Your task to perform on an android device: turn vacation reply on in the gmail app Image 0: 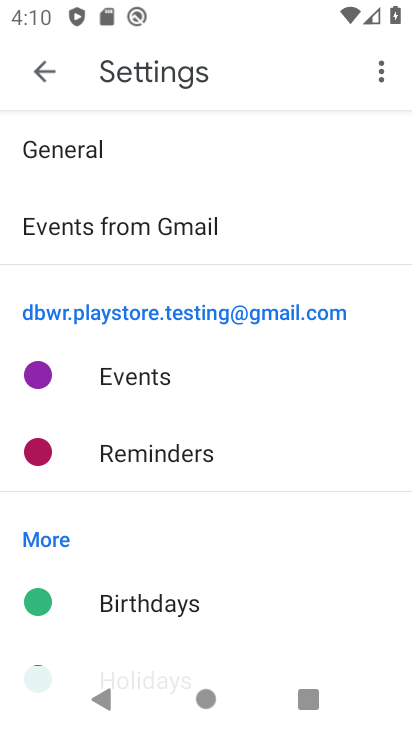
Step 0: click (36, 81)
Your task to perform on an android device: turn vacation reply on in the gmail app Image 1: 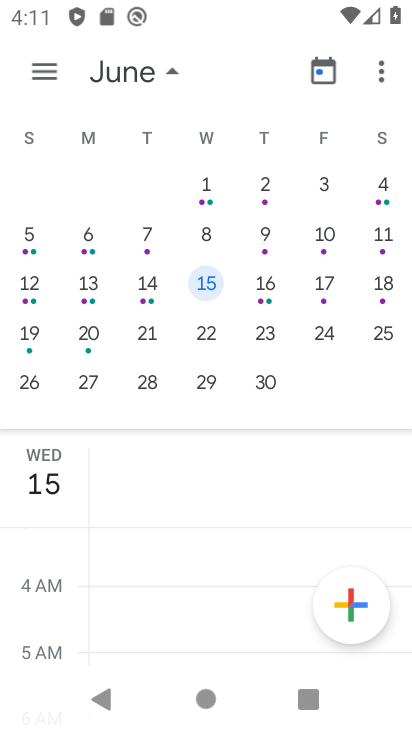
Step 1: drag from (248, 531) to (148, 195)
Your task to perform on an android device: turn vacation reply on in the gmail app Image 2: 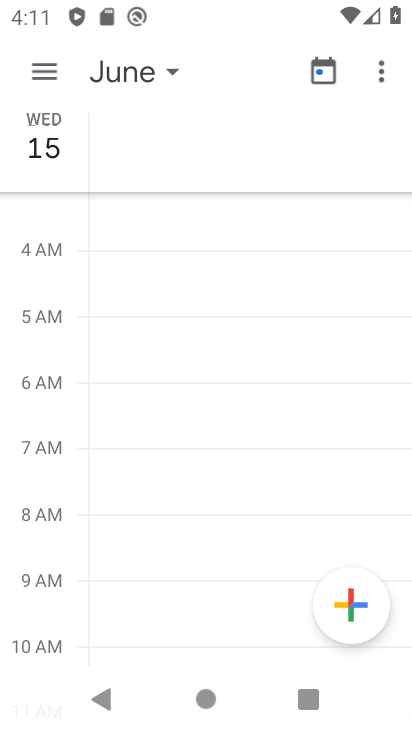
Step 2: drag from (286, 585) to (195, 108)
Your task to perform on an android device: turn vacation reply on in the gmail app Image 3: 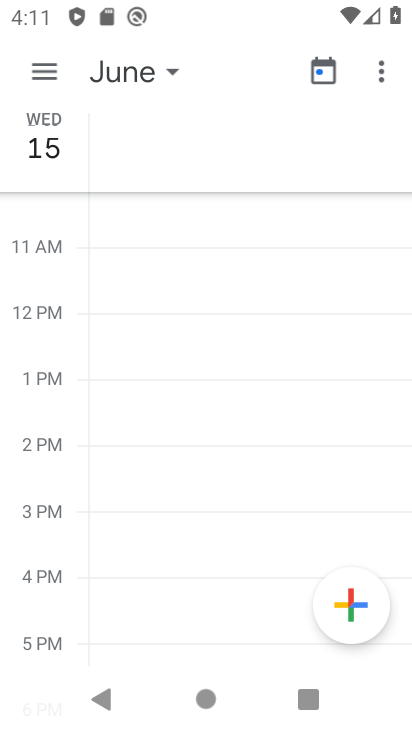
Step 3: drag from (249, 579) to (170, 80)
Your task to perform on an android device: turn vacation reply on in the gmail app Image 4: 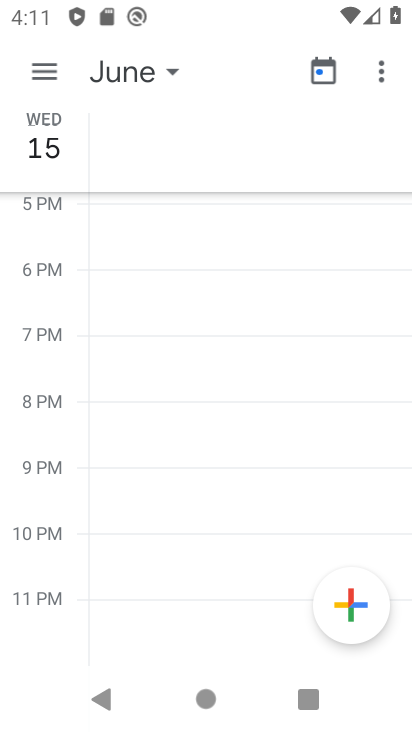
Step 4: drag from (207, 506) to (105, 47)
Your task to perform on an android device: turn vacation reply on in the gmail app Image 5: 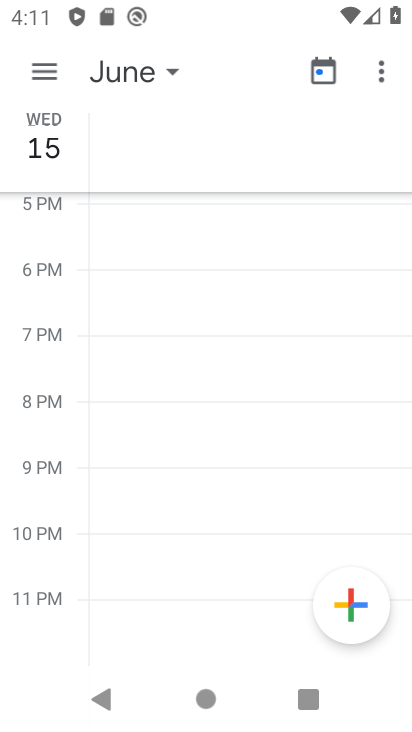
Step 5: drag from (218, 476) to (224, 124)
Your task to perform on an android device: turn vacation reply on in the gmail app Image 6: 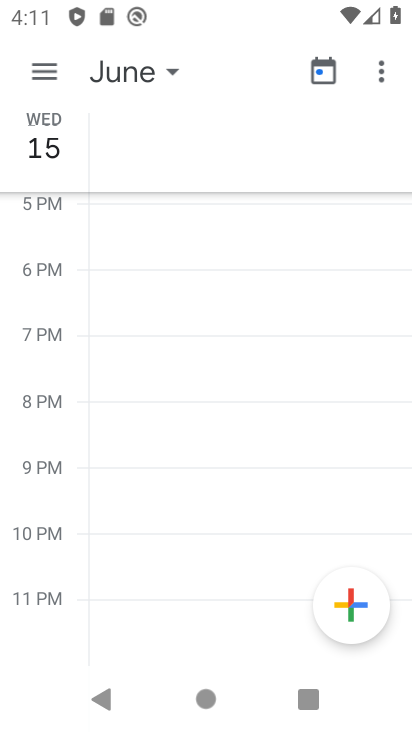
Step 6: click (109, 33)
Your task to perform on an android device: turn vacation reply on in the gmail app Image 7: 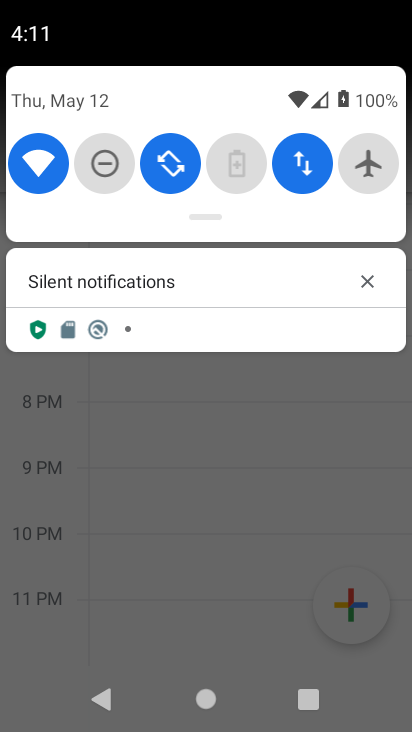
Step 7: drag from (209, 508) to (65, 74)
Your task to perform on an android device: turn vacation reply on in the gmail app Image 8: 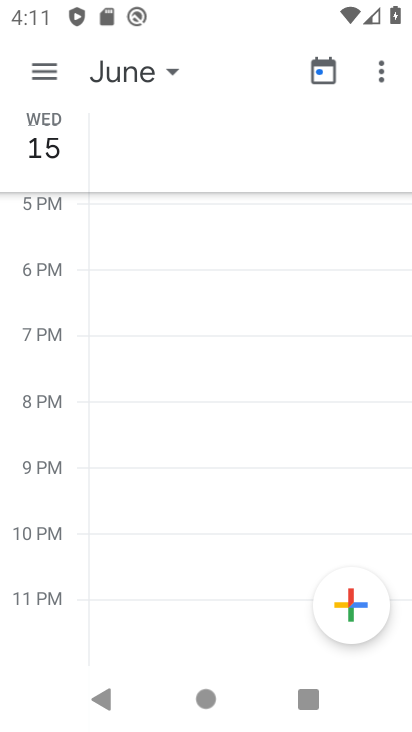
Step 8: drag from (232, 557) to (126, 122)
Your task to perform on an android device: turn vacation reply on in the gmail app Image 9: 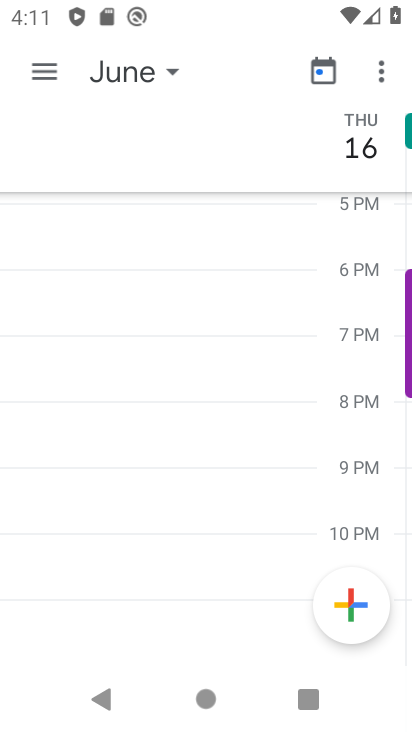
Step 9: drag from (251, 485) to (133, 127)
Your task to perform on an android device: turn vacation reply on in the gmail app Image 10: 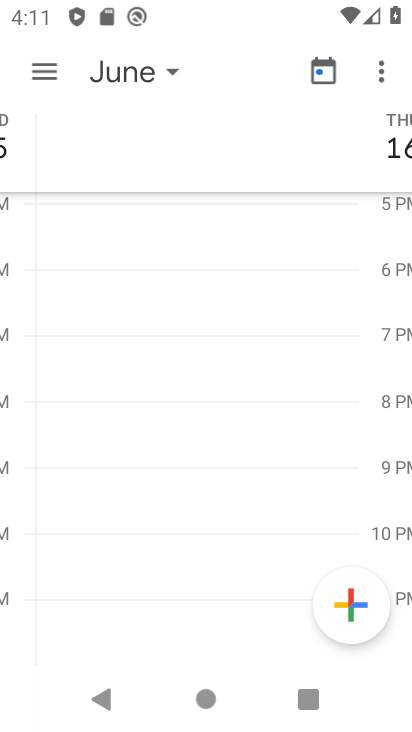
Step 10: drag from (228, 483) to (167, 88)
Your task to perform on an android device: turn vacation reply on in the gmail app Image 11: 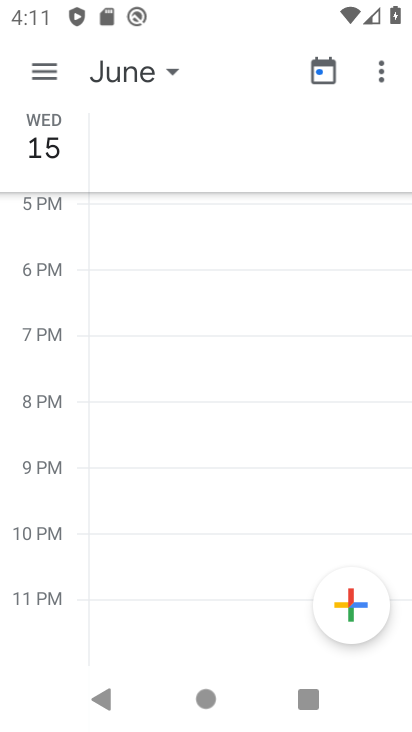
Step 11: drag from (190, 477) to (202, 16)
Your task to perform on an android device: turn vacation reply on in the gmail app Image 12: 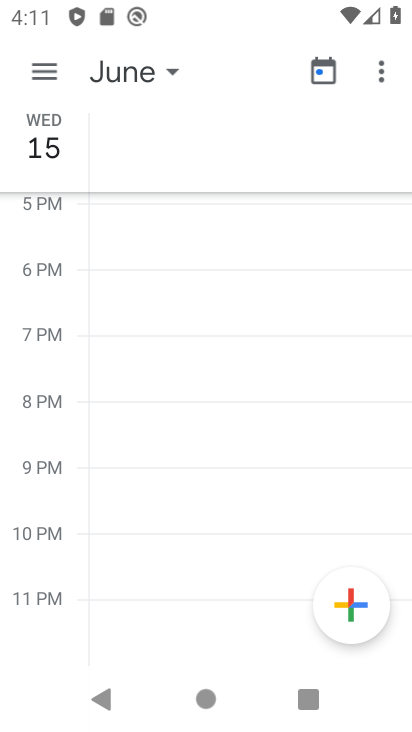
Step 12: drag from (211, 518) to (147, 25)
Your task to perform on an android device: turn vacation reply on in the gmail app Image 13: 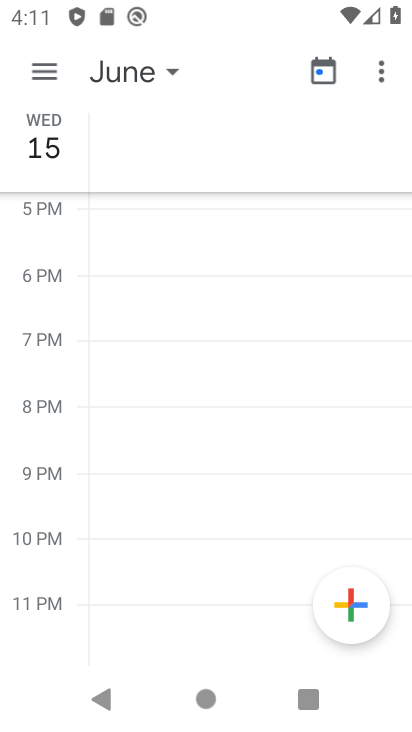
Step 13: drag from (166, 468) to (104, 15)
Your task to perform on an android device: turn vacation reply on in the gmail app Image 14: 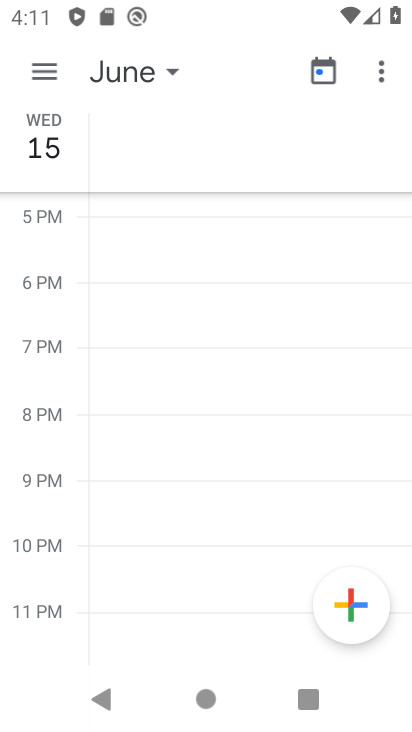
Step 14: drag from (227, 466) to (86, 36)
Your task to perform on an android device: turn vacation reply on in the gmail app Image 15: 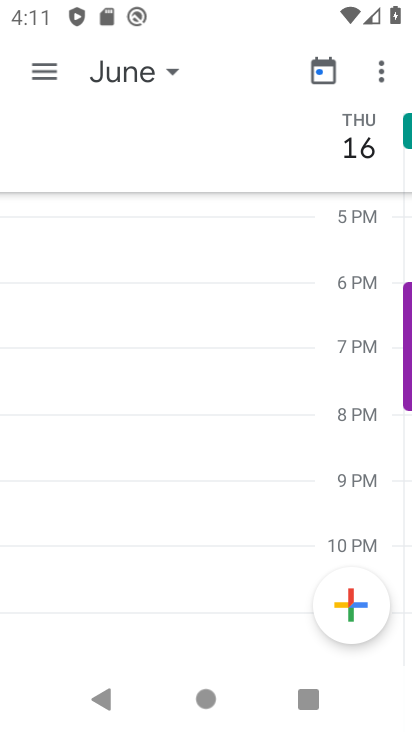
Step 15: drag from (172, 553) to (120, 74)
Your task to perform on an android device: turn vacation reply on in the gmail app Image 16: 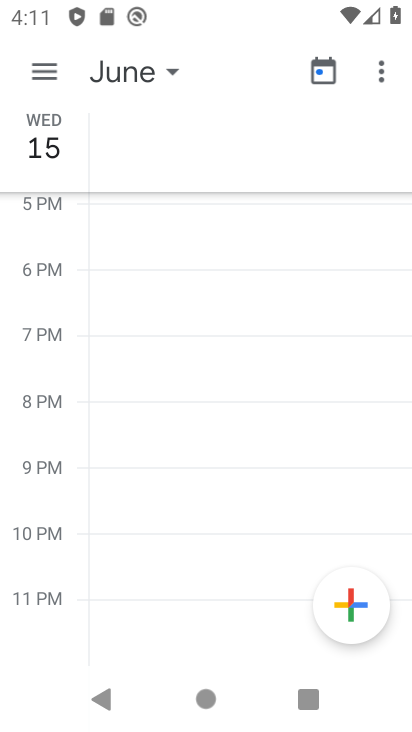
Step 16: drag from (208, 523) to (191, 50)
Your task to perform on an android device: turn vacation reply on in the gmail app Image 17: 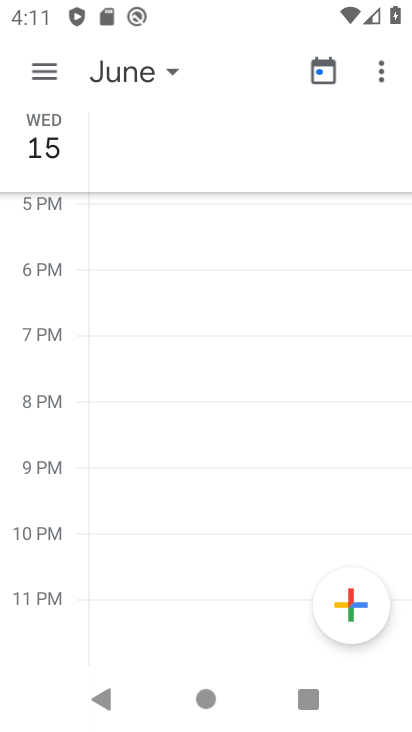
Step 17: drag from (223, 583) to (175, 52)
Your task to perform on an android device: turn vacation reply on in the gmail app Image 18: 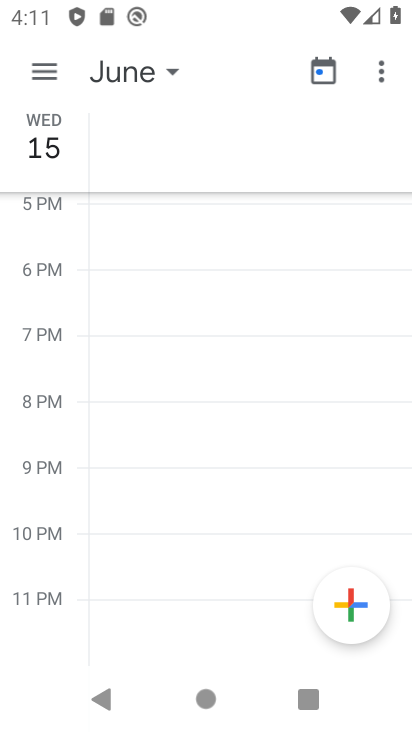
Step 18: drag from (270, 545) to (128, 132)
Your task to perform on an android device: turn vacation reply on in the gmail app Image 19: 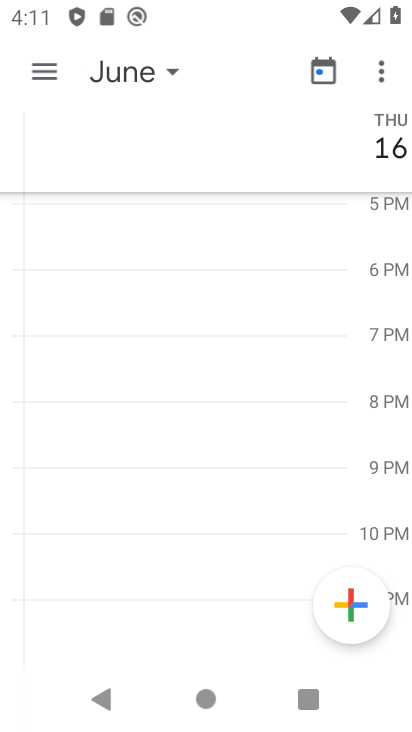
Step 19: drag from (212, 457) to (156, 23)
Your task to perform on an android device: turn vacation reply on in the gmail app Image 20: 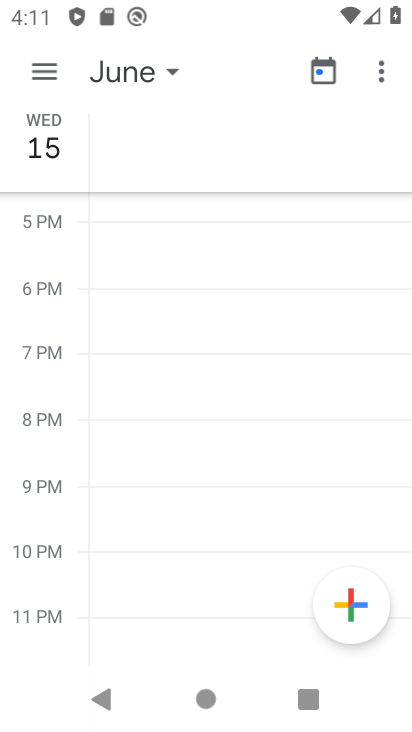
Step 20: drag from (191, 417) to (210, 43)
Your task to perform on an android device: turn vacation reply on in the gmail app Image 21: 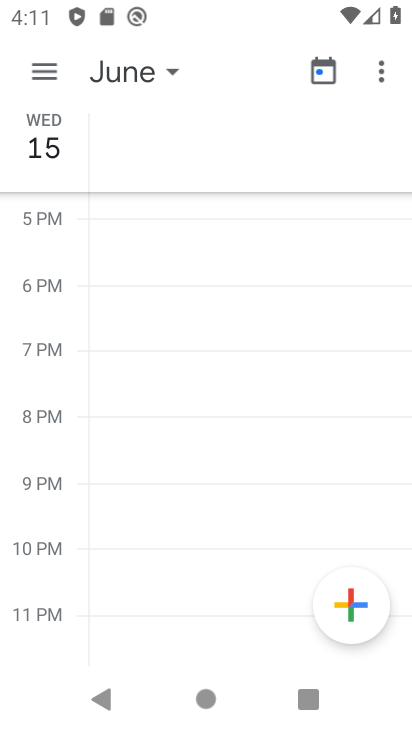
Step 21: drag from (232, 496) to (146, 7)
Your task to perform on an android device: turn vacation reply on in the gmail app Image 22: 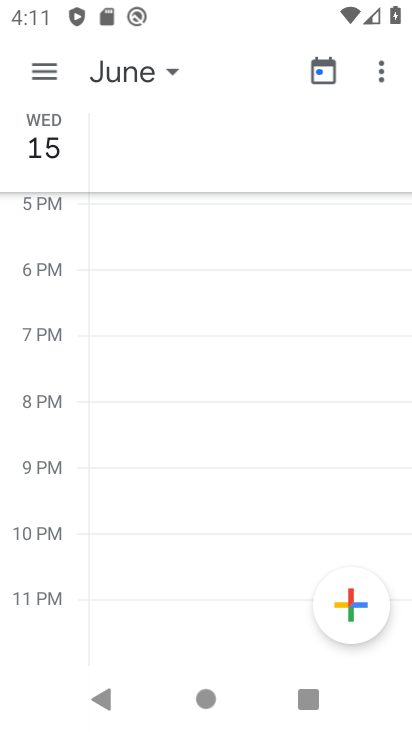
Step 22: drag from (189, 443) to (164, 27)
Your task to perform on an android device: turn vacation reply on in the gmail app Image 23: 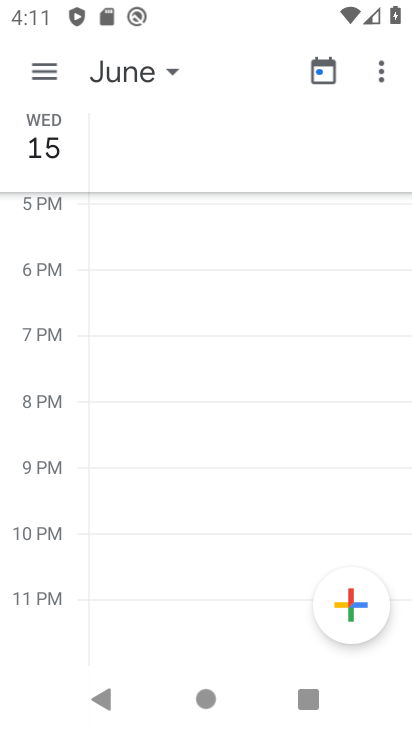
Step 23: drag from (235, 492) to (194, 45)
Your task to perform on an android device: turn vacation reply on in the gmail app Image 24: 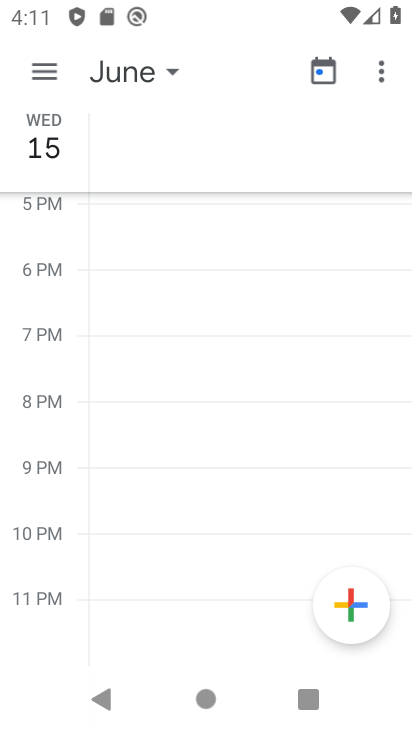
Step 24: click (38, 90)
Your task to perform on an android device: turn vacation reply on in the gmail app Image 25: 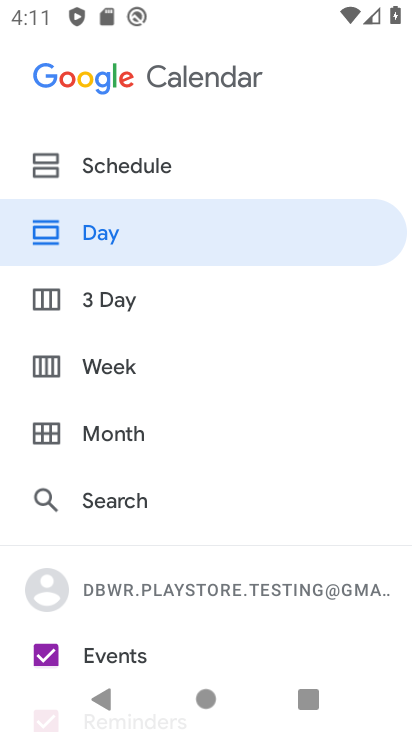
Step 25: drag from (199, 210) to (190, 471)
Your task to perform on an android device: turn vacation reply on in the gmail app Image 26: 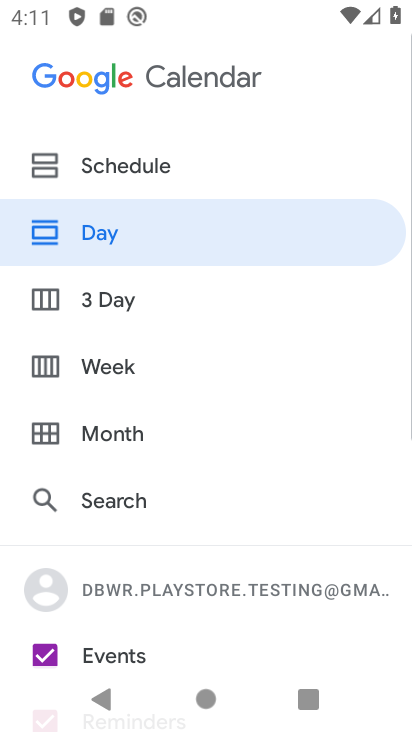
Step 26: drag from (136, 285) to (129, 232)
Your task to perform on an android device: turn vacation reply on in the gmail app Image 27: 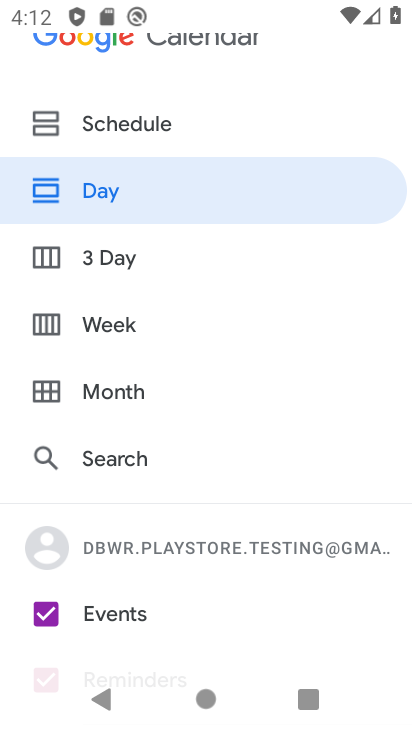
Step 27: press home button
Your task to perform on an android device: turn vacation reply on in the gmail app Image 28: 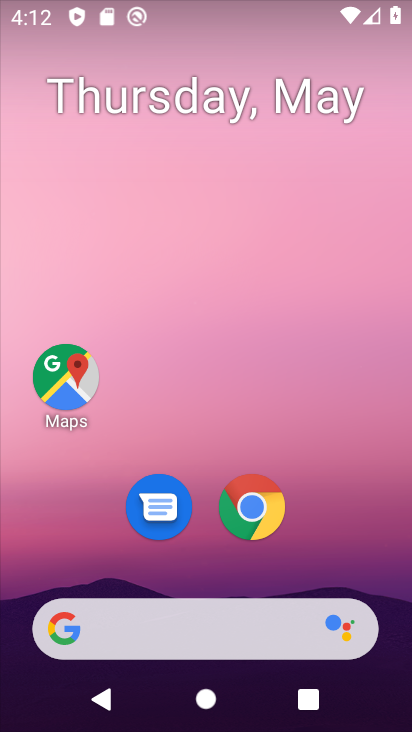
Step 28: drag from (354, 597) to (1, 62)
Your task to perform on an android device: turn vacation reply on in the gmail app Image 29: 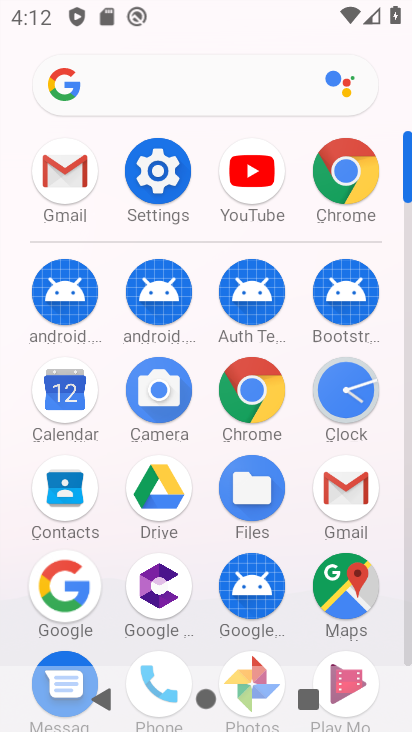
Step 29: drag from (236, 520) to (100, 55)
Your task to perform on an android device: turn vacation reply on in the gmail app Image 30: 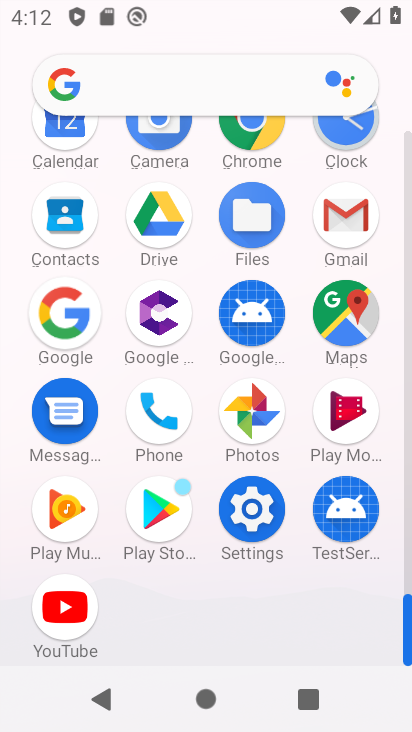
Step 30: drag from (238, 464) to (198, 145)
Your task to perform on an android device: turn vacation reply on in the gmail app Image 31: 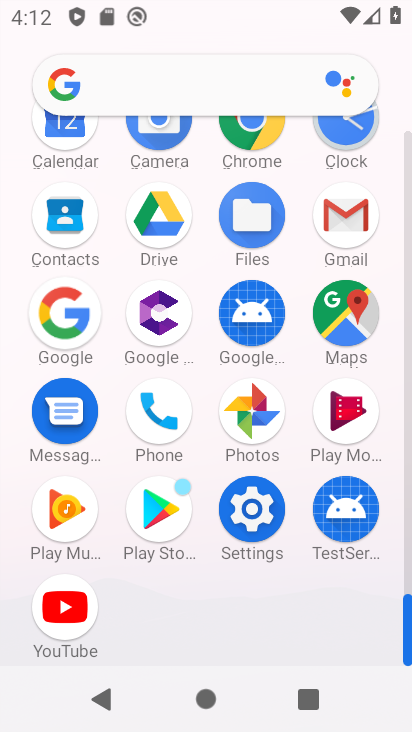
Step 31: click (342, 221)
Your task to perform on an android device: turn vacation reply on in the gmail app Image 32: 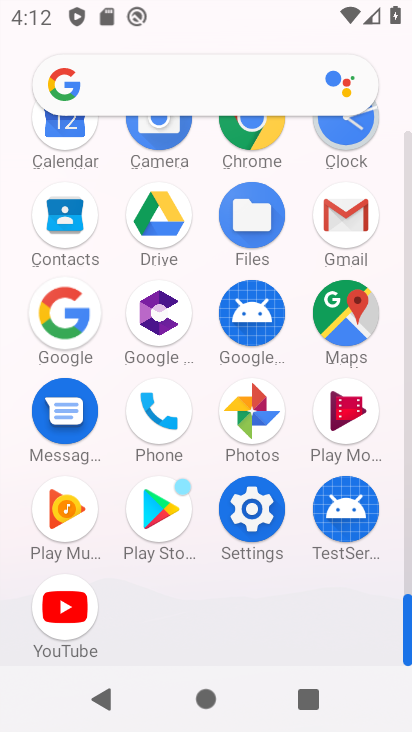
Step 32: click (343, 220)
Your task to perform on an android device: turn vacation reply on in the gmail app Image 33: 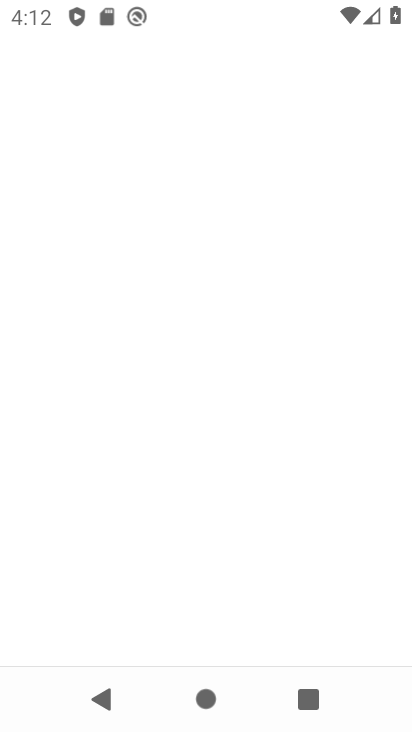
Step 33: click (348, 222)
Your task to perform on an android device: turn vacation reply on in the gmail app Image 34: 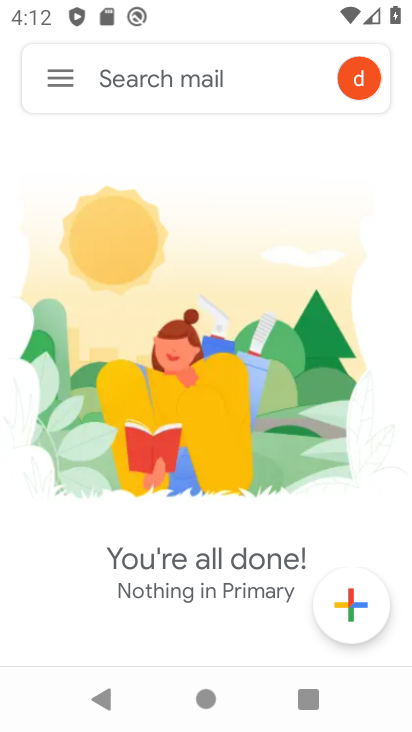
Step 34: click (55, 84)
Your task to perform on an android device: turn vacation reply on in the gmail app Image 35: 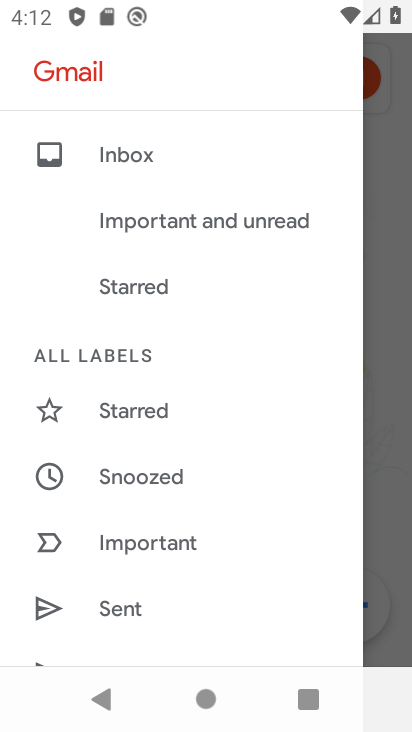
Step 35: drag from (234, 560) to (168, 219)
Your task to perform on an android device: turn vacation reply on in the gmail app Image 36: 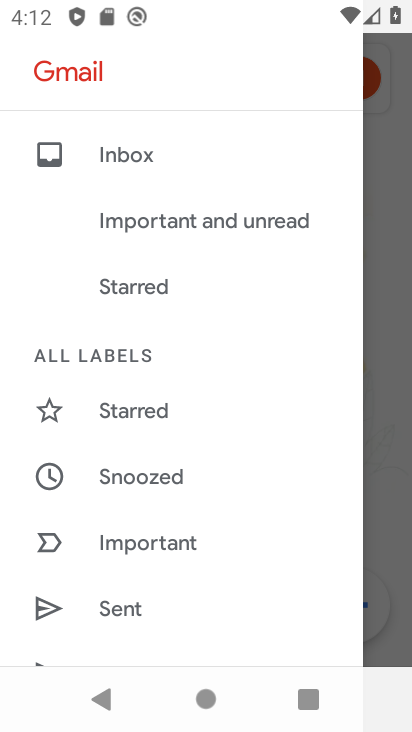
Step 36: drag from (200, 560) to (94, 160)
Your task to perform on an android device: turn vacation reply on in the gmail app Image 37: 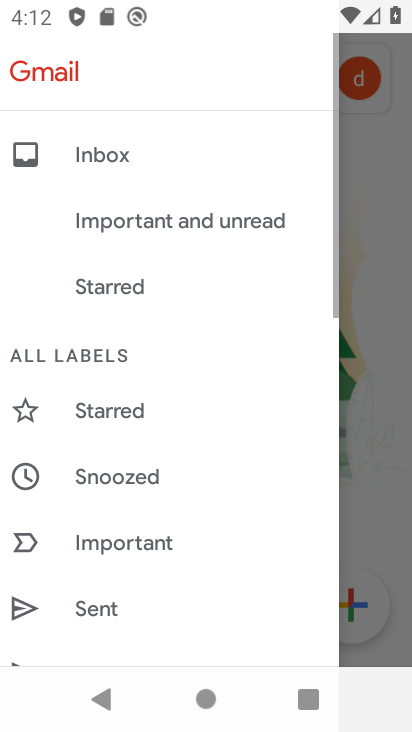
Step 37: drag from (233, 536) to (159, 186)
Your task to perform on an android device: turn vacation reply on in the gmail app Image 38: 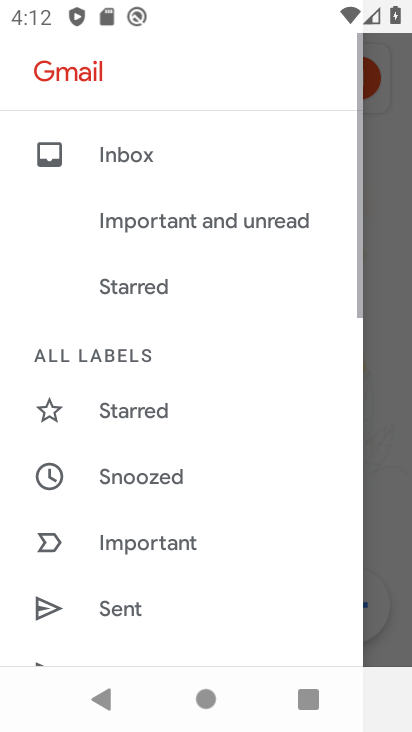
Step 38: drag from (190, 529) to (205, 194)
Your task to perform on an android device: turn vacation reply on in the gmail app Image 39: 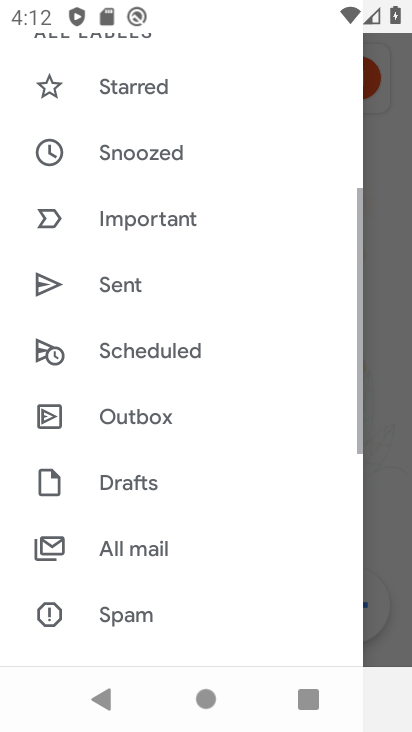
Step 39: drag from (207, 458) to (201, 103)
Your task to perform on an android device: turn vacation reply on in the gmail app Image 40: 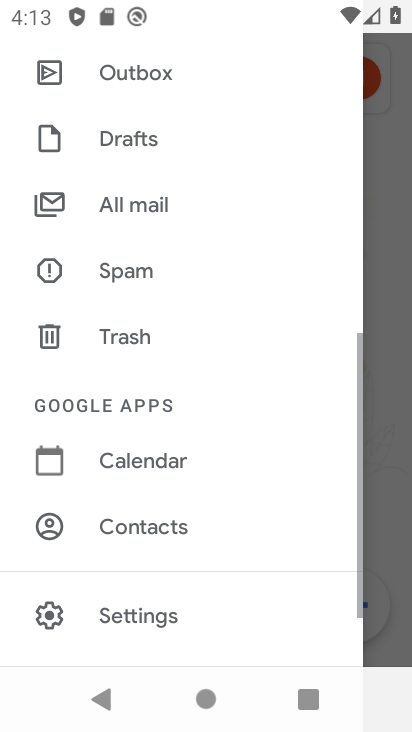
Step 40: drag from (190, 466) to (157, 99)
Your task to perform on an android device: turn vacation reply on in the gmail app Image 41: 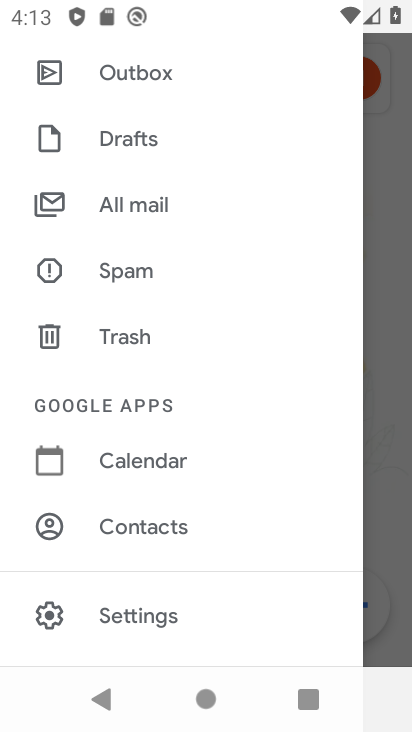
Step 41: click (141, 603)
Your task to perform on an android device: turn vacation reply on in the gmail app Image 42: 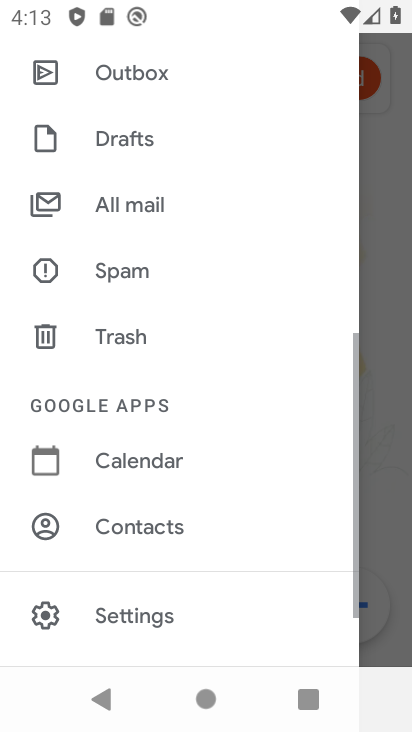
Step 42: click (139, 609)
Your task to perform on an android device: turn vacation reply on in the gmail app Image 43: 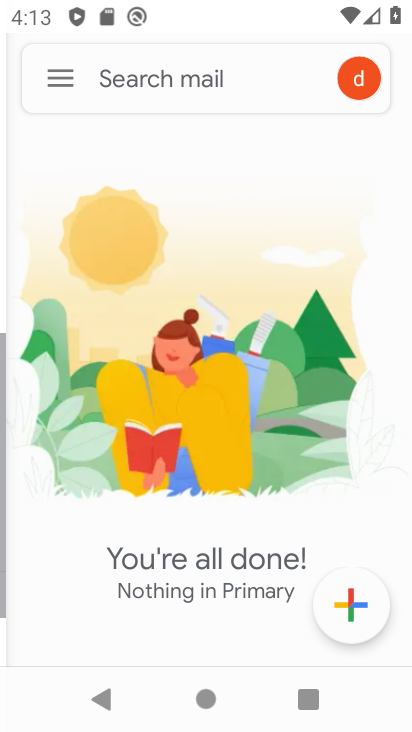
Step 43: click (139, 609)
Your task to perform on an android device: turn vacation reply on in the gmail app Image 44: 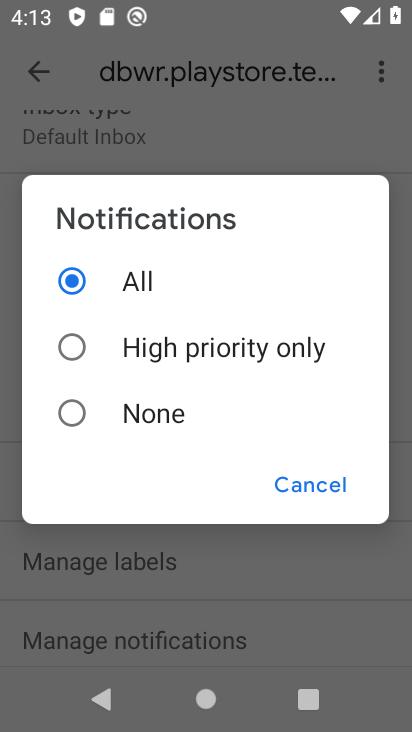
Step 44: click (295, 490)
Your task to perform on an android device: turn vacation reply on in the gmail app Image 45: 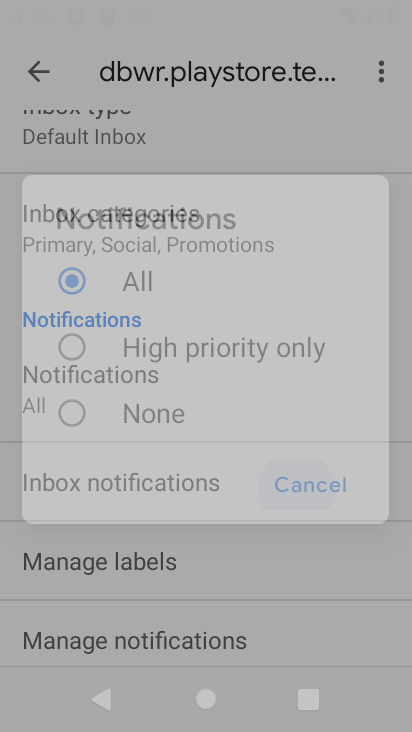
Step 45: click (301, 476)
Your task to perform on an android device: turn vacation reply on in the gmail app Image 46: 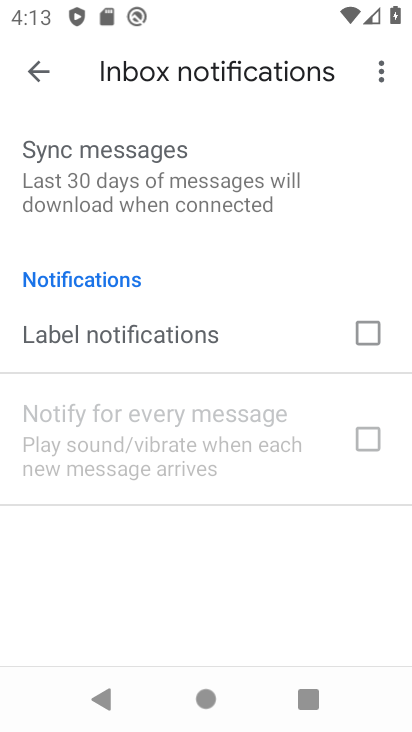
Step 46: click (33, 66)
Your task to perform on an android device: turn vacation reply on in the gmail app Image 47: 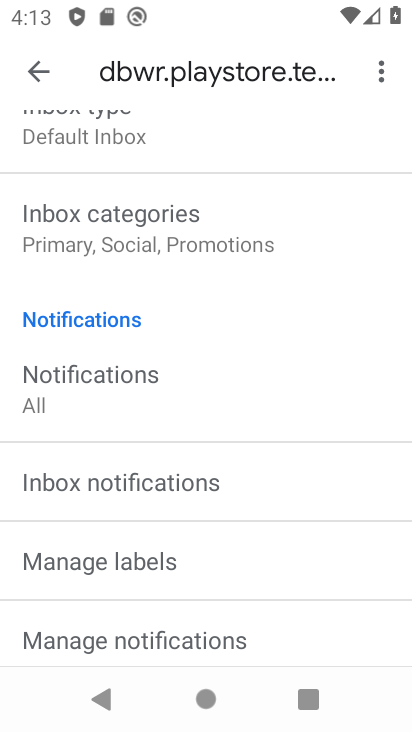
Step 47: drag from (131, 470) to (42, 99)
Your task to perform on an android device: turn vacation reply on in the gmail app Image 48: 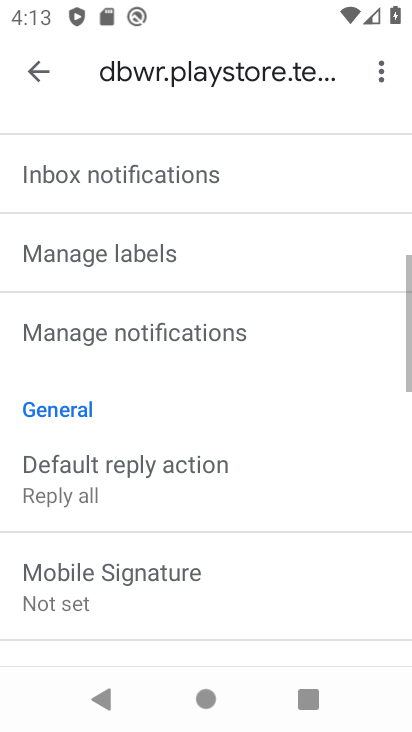
Step 48: drag from (174, 444) to (148, 63)
Your task to perform on an android device: turn vacation reply on in the gmail app Image 49: 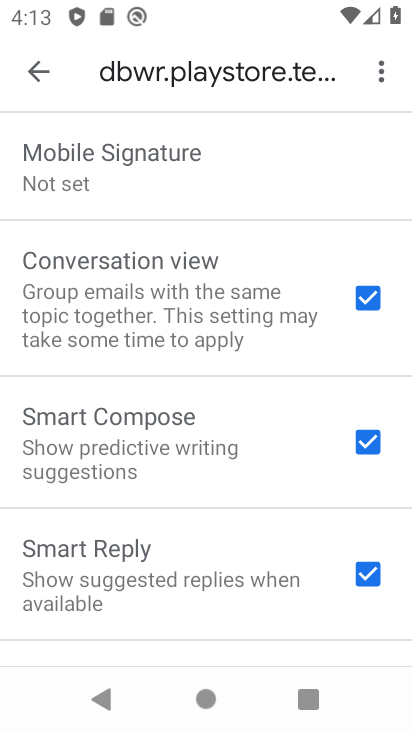
Step 49: drag from (158, 593) to (134, 131)
Your task to perform on an android device: turn vacation reply on in the gmail app Image 50: 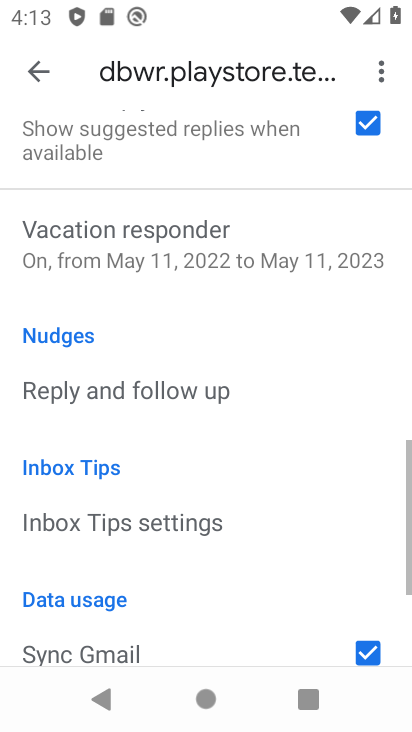
Step 50: drag from (191, 469) to (130, 134)
Your task to perform on an android device: turn vacation reply on in the gmail app Image 51: 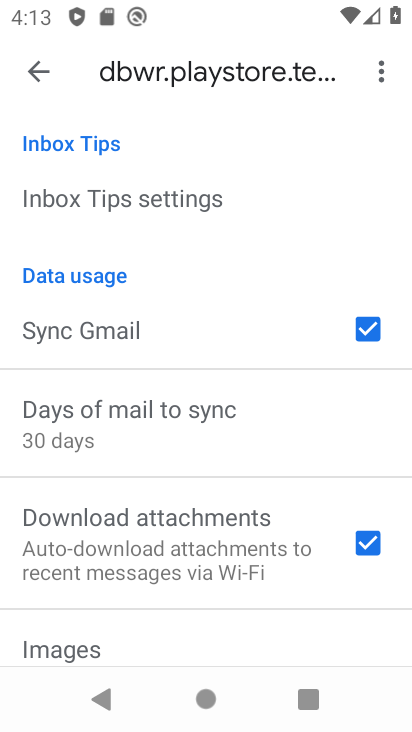
Step 51: drag from (175, 496) to (142, 182)
Your task to perform on an android device: turn vacation reply on in the gmail app Image 52: 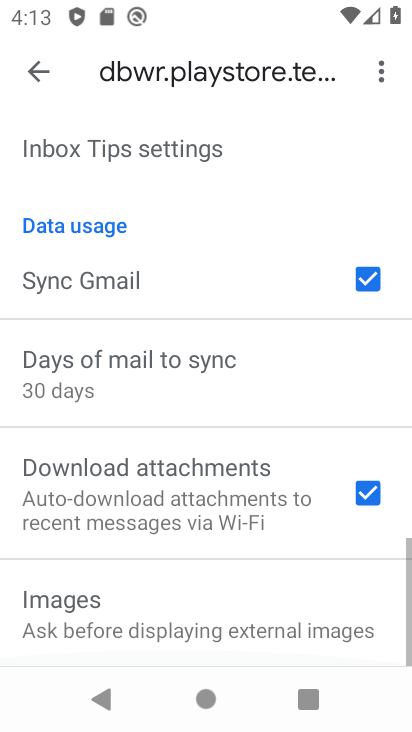
Step 52: drag from (162, 456) to (147, 175)
Your task to perform on an android device: turn vacation reply on in the gmail app Image 53: 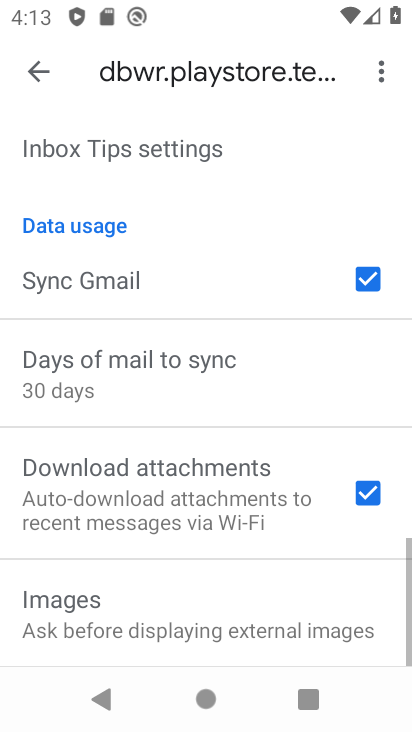
Step 53: drag from (163, 504) to (97, 35)
Your task to perform on an android device: turn vacation reply on in the gmail app Image 54: 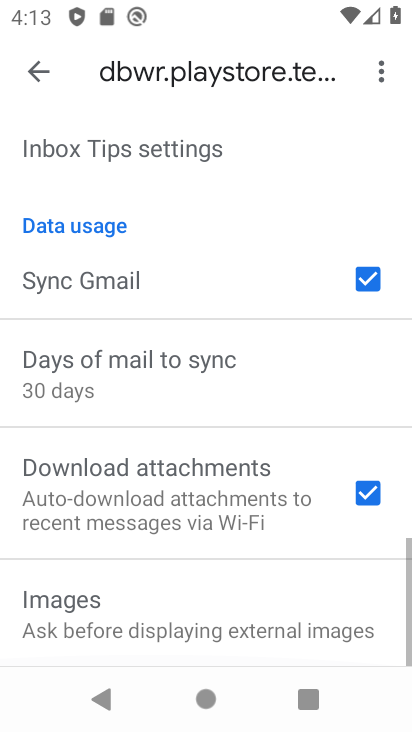
Step 54: drag from (156, 434) to (115, 161)
Your task to perform on an android device: turn vacation reply on in the gmail app Image 55: 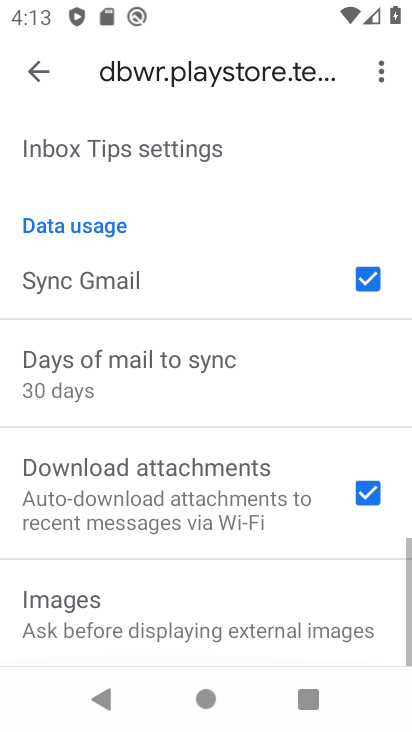
Step 55: drag from (189, 402) to (198, 110)
Your task to perform on an android device: turn vacation reply on in the gmail app Image 56: 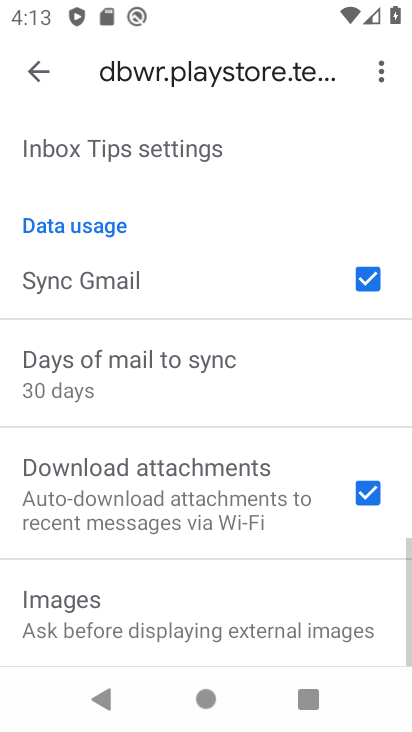
Step 56: drag from (221, 392) to (203, 39)
Your task to perform on an android device: turn vacation reply on in the gmail app Image 57: 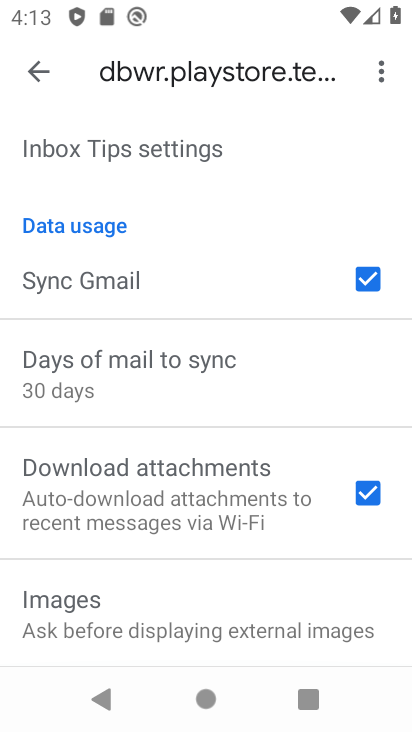
Step 57: drag from (196, 283) to (213, 2)
Your task to perform on an android device: turn vacation reply on in the gmail app Image 58: 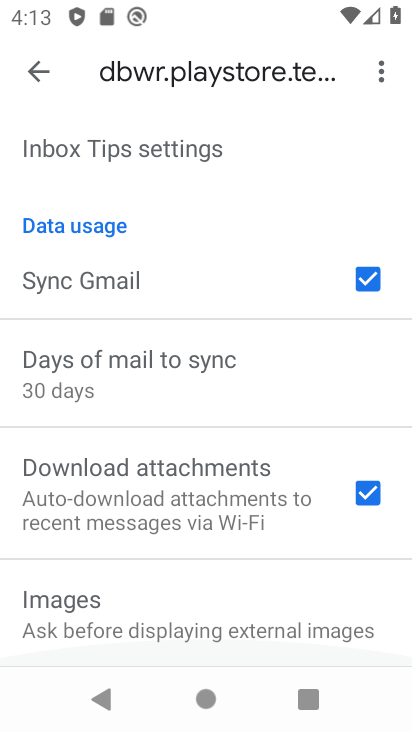
Step 58: drag from (248, 430) to (169, 10)
Your task to perform on an android device: turn vacation reply on in the gmail app Image 59: 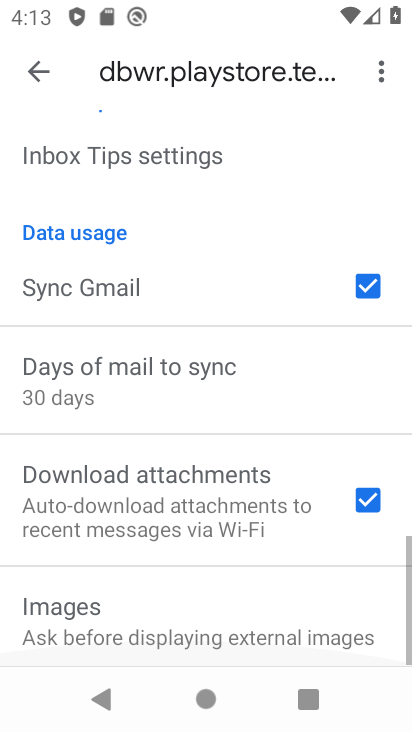
Step 59: drag from (257, 353) to (260, 12)
Your task to perform on an android device: turn vacation reply on in the gmail app Image 60: 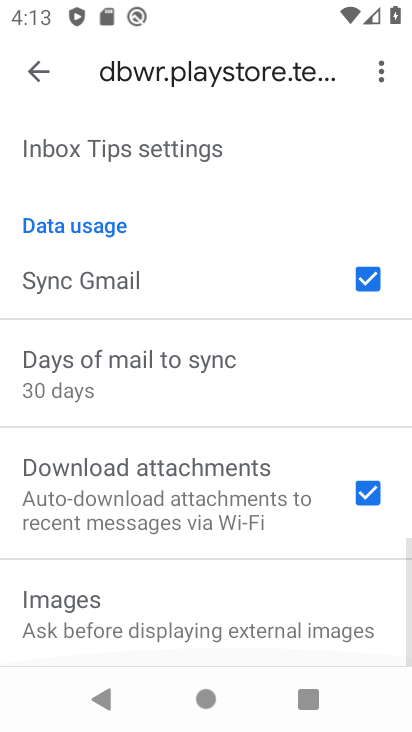
Step 60: drag from (195, 405) to (161, 133)
Your task to perform on an android device: turn vacation reply on in the gmail app Image 61: 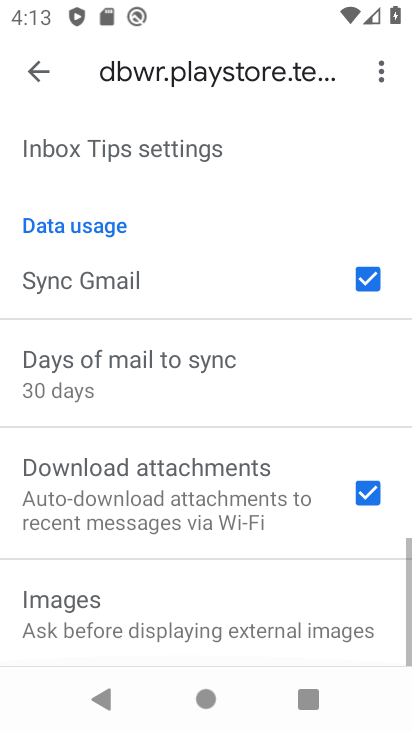
Step 61: drag from (152, 349) to (108, 16)
Your task to perform on an android device: turn vacation reply on in the gmail app Image 62: 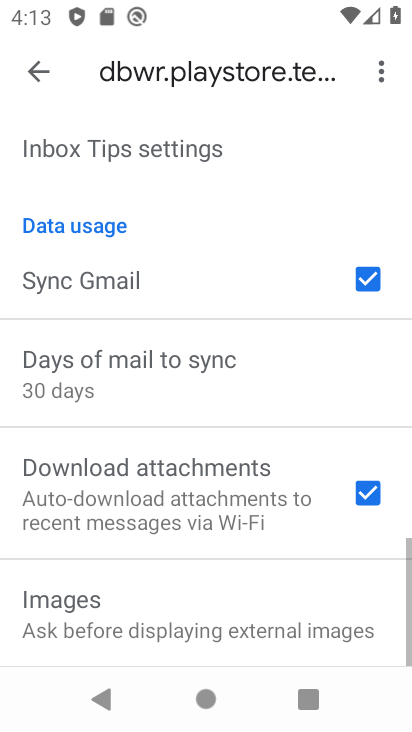
Step 62: drag from (172, 410) to (152, 20)
Your task to perform on an android device: turn vacation reply on in the gmail app Image 63: 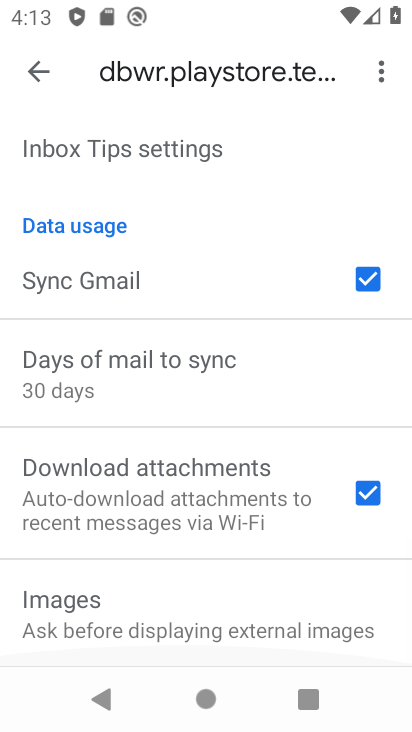
Step 63: drag from (176, 319) to (214, 72)
Your task to perform on an android device: turn vacation reply on in the gmail app Image 64: 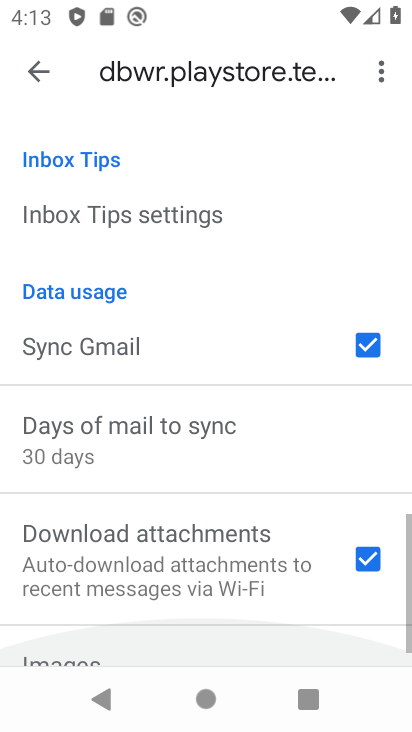
Step 64: drag from (185, 400) to (151, 248)
Your task to perform on an android device: turn vacation reply on in the gmail app Image 65: 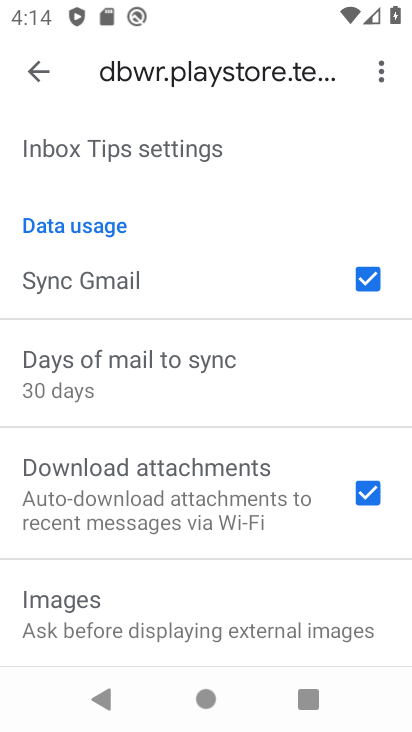
Step 65: drag from (202, 489) to (162, 3)
Your task to perform on an android device: turn vacation reply on in the gmail app Image 66: 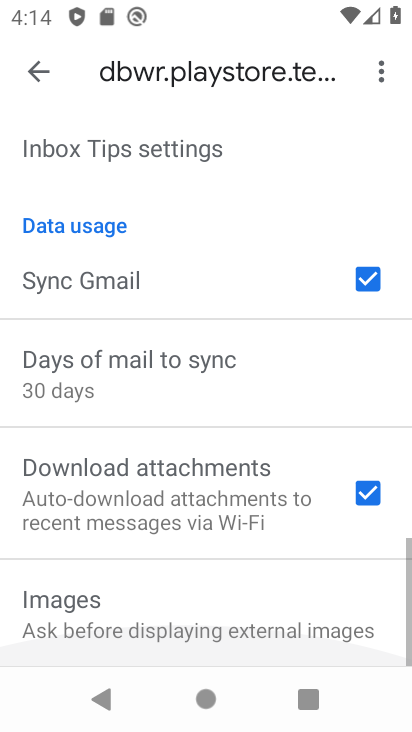
Step 66: drag from (234, 430) to (184, 109)
Your task to perform on an android device: turn vacation reply on in the gmail app Image 67: 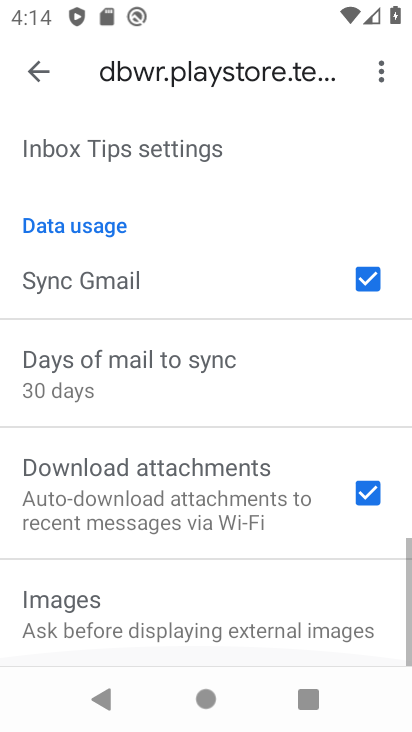
Step 67: drag from (236, 476) to (170, 11)
Your task to perform on an android device: turn vacation reply on in the gmail app Image 68: 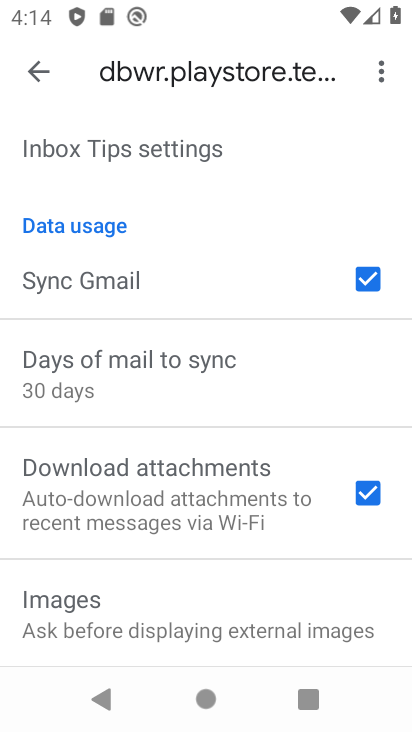
Step 68: drag from (239, 450) to (171, 7)
Your task to perform on an android device: turn vacation reply on in the gmail app Image 69: 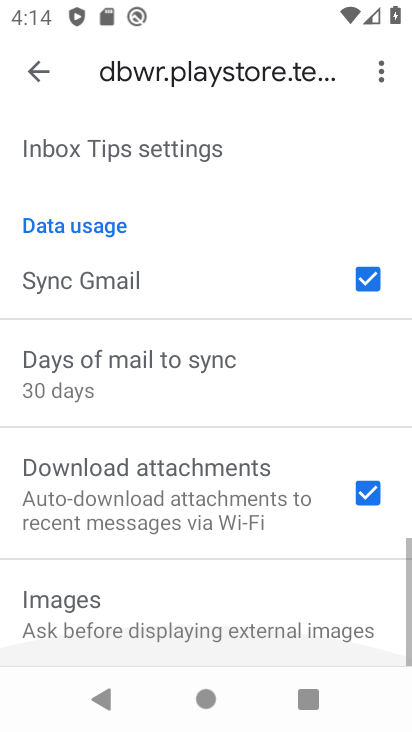
Step 69: drag from (261, 488) to (188, 141)
Your task to perform on an android device: turn vacation reply on in the gmail app Image 70: 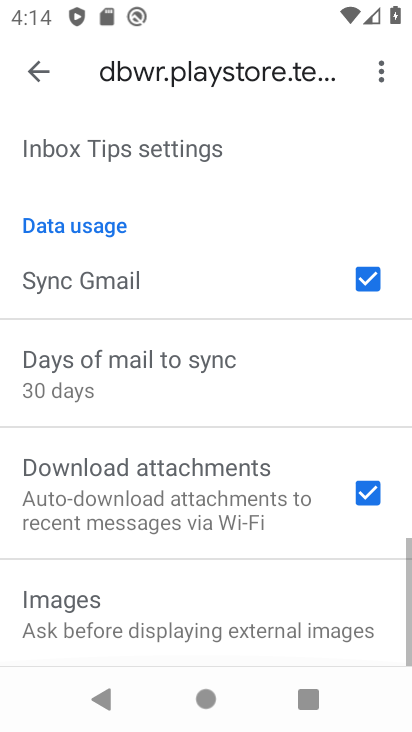
Step 70: drag from (258, 318) to (236, 52)
Your task to perform on an android device: turn vacation reply on in the gmail app Image 71: 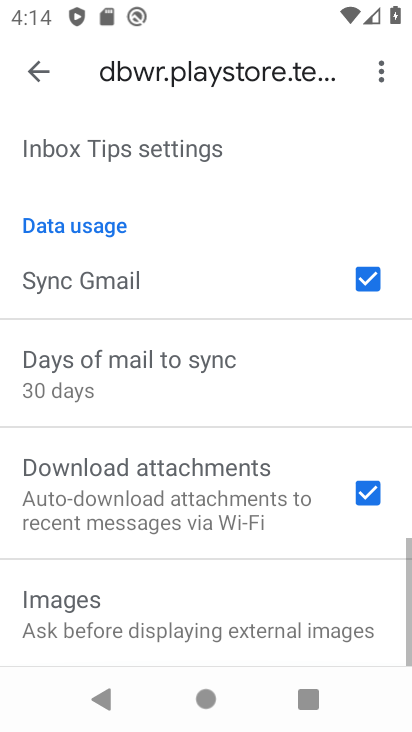
Step 71: drag from (235, 396) to (211, 24)
Your task to perform on an android device: turn vacation reply on in the gmail app Image 72: 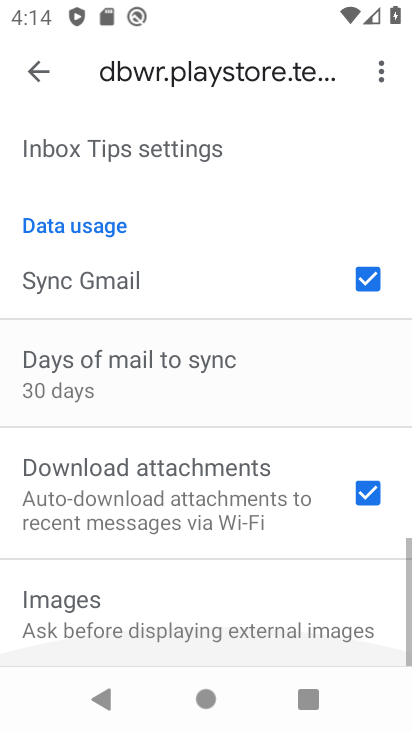
Step 72: drag from (182, 356) to (182, 45)
Your task to perform on an android device: turn vacation reply on in the gmail app Image 73: 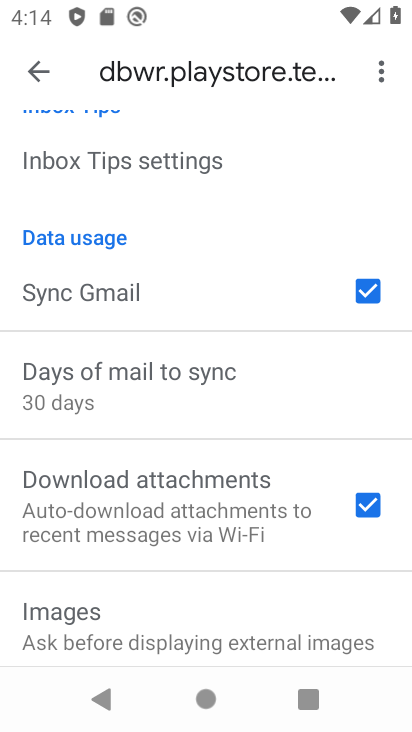
Step 73: click (91, 639)
Your task to perform on an android device: turn vacation reply on in the gmail app Image 74: 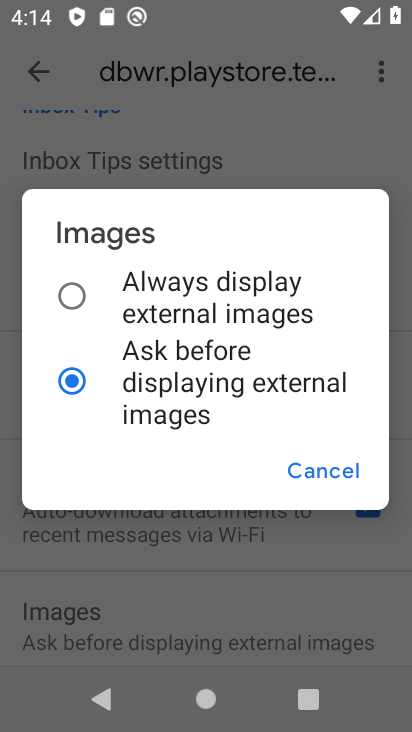
Step 74: click (315, 480)
Your task to perform on an android device: turn vacation reply on in the gmail app Image 75: 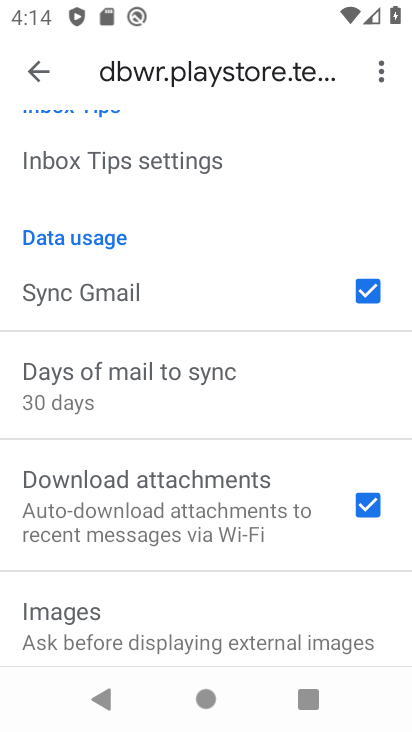
Step 75: drag from (137, 557) to (77, 3)
Your task to perform on an android device: turn vacation reply on in the gmail app Image 76: 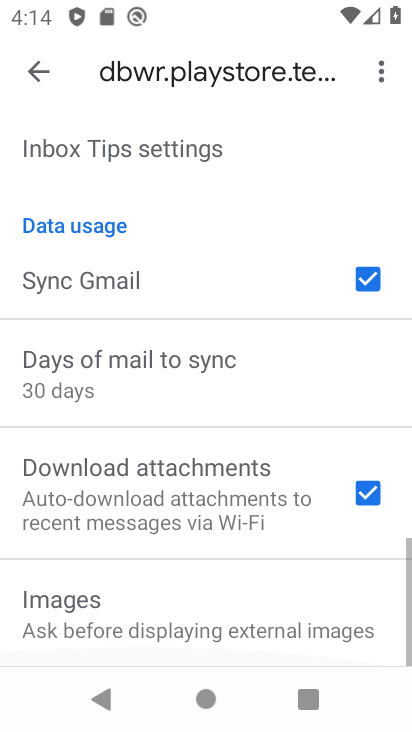
Step 76: drag from (171, 444) to (121, 26)
Your task to perform on an android device: turn vacation reply on in the gmail app Image 77: 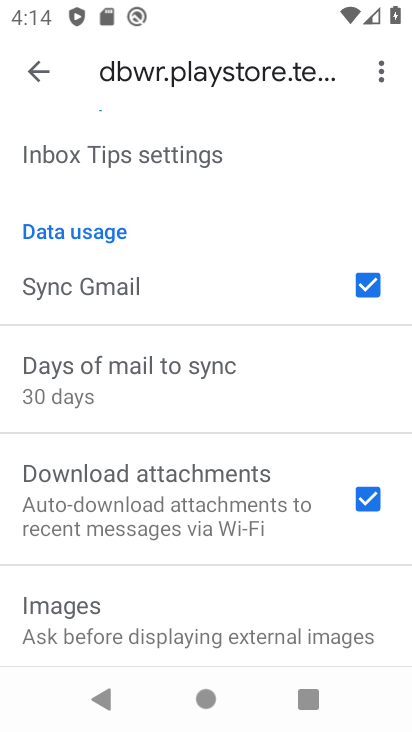
Step 77: drag from (114, 338) to (187, 616)
Your task to perform on an android device: turn vacation reply on in the gmail app Image 78: 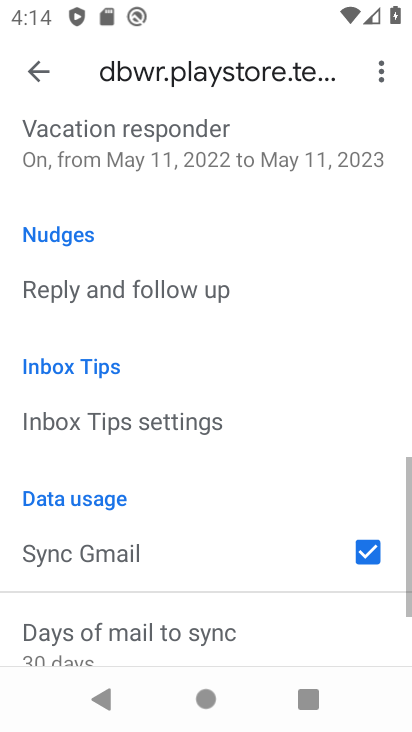
Step 78: drag from (147, 230) to (247, 612)
Your task to perform on an android device: turn vacation reply on in the gmail app Image 79: 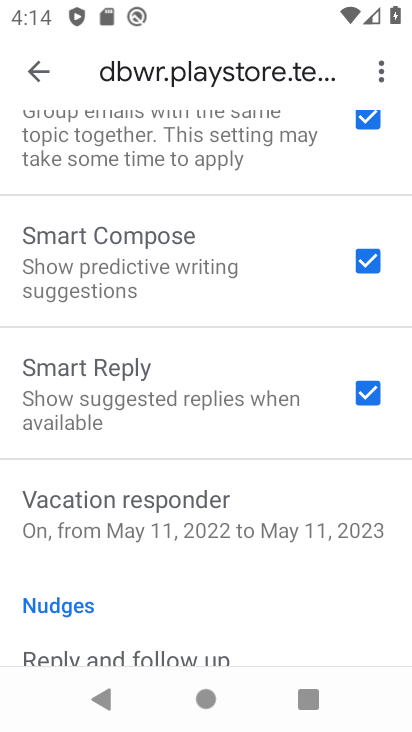
Step 79: click (167, 521)
Your task to perform on an android device: turn vacation reply on in the gmail app Image 80: 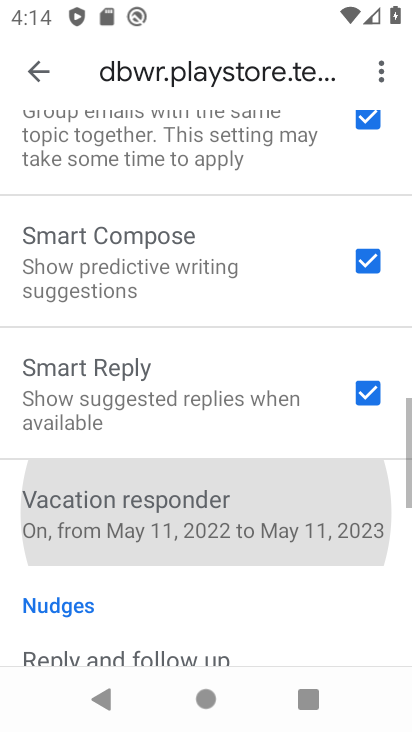
Step 80: click (171, 518)
Your task to perform on an android device: turn vacation reply on in the gmail app Image 81: 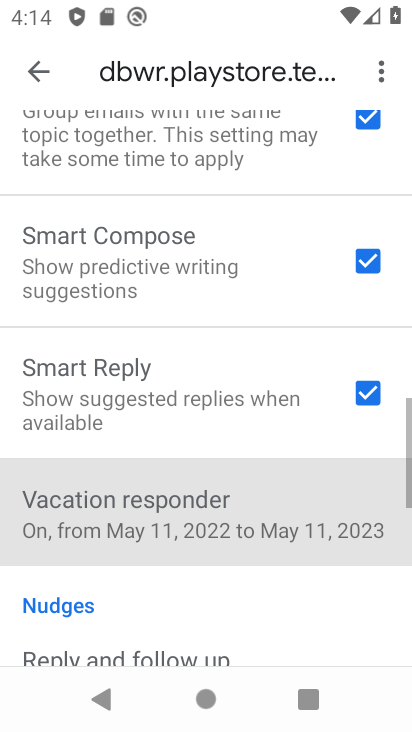
Step 81: click (163, 512)
Your task to perform on an android device: turn vacation reply on in the gmail app Image 82: 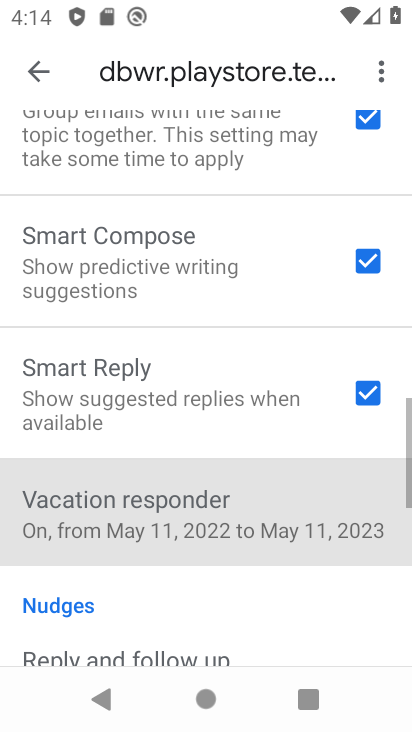
Step 82: click (163, 499)
Your task to perform on an android device: turn vacation reply on in the gmail app Image 83: 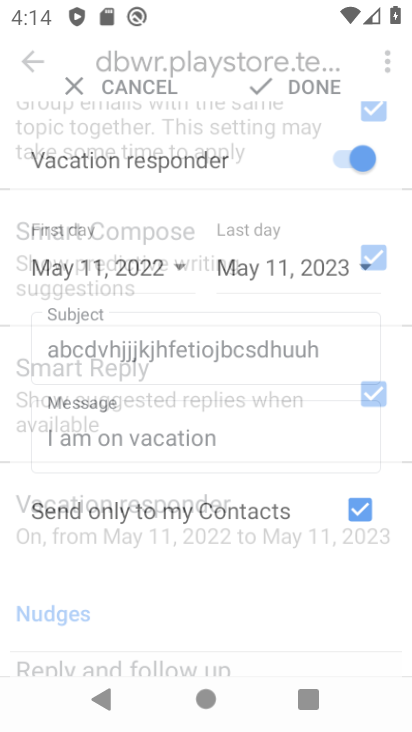
Step 83: click (163, 492)
Your task to perform on an android device: turn vacation reply on in the gmail app Image 84: 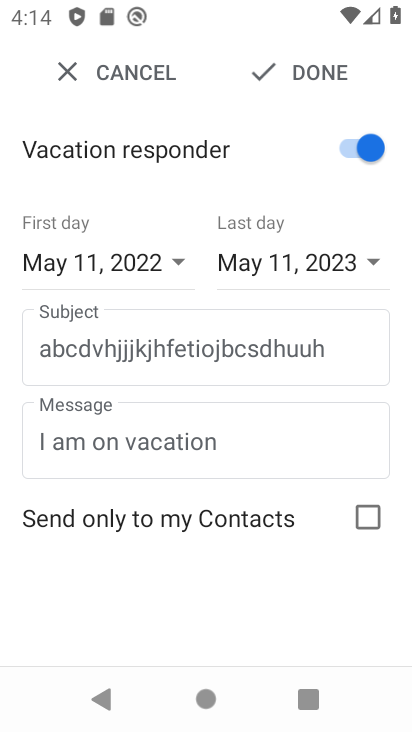
Step 84: task complete